Your task to perform on an android device: turn notification dots off Image 0: 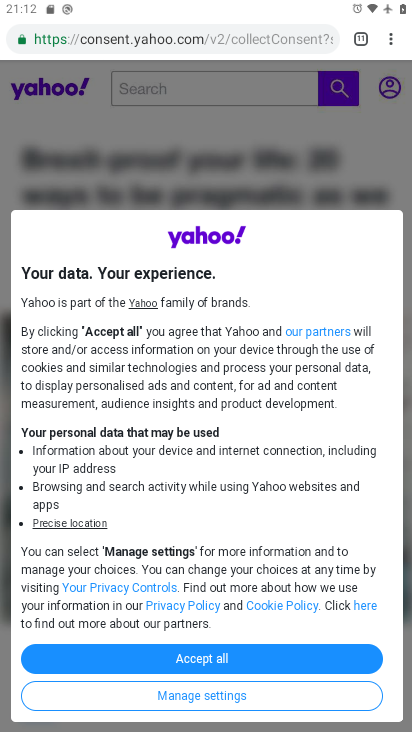
Step 0: press home button
Your task to perform on an android device: turn notification dots off Image 1: 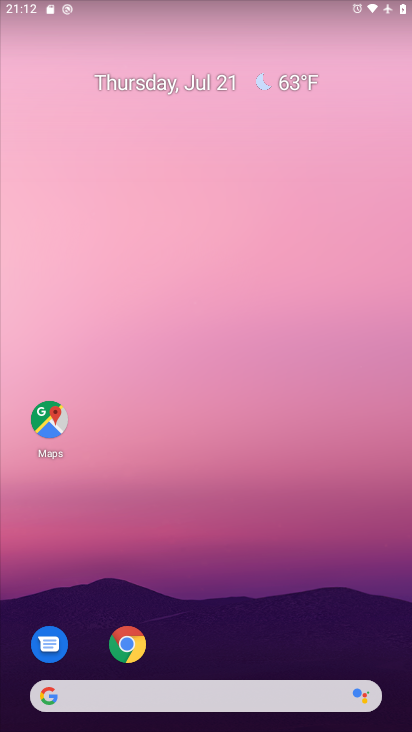
Step 1: drag from (234, 692) to (224, 95)
Your task to perform on an android device: turn notification dots off Image 2: 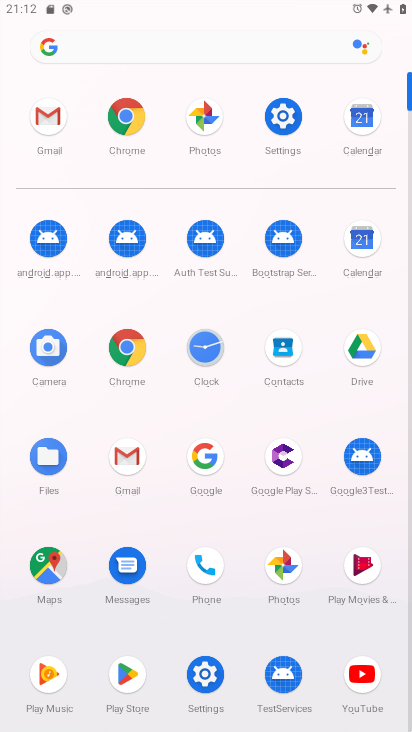
Step 2: click (275, 109)
Your task to perform on an android device: turn notification dots off Image 3: 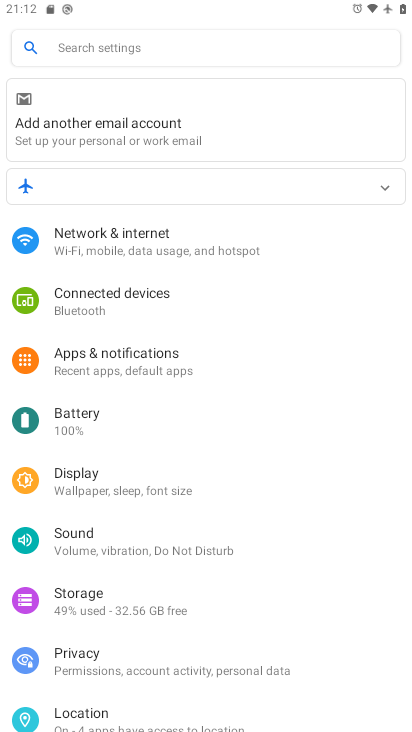
Step 3: click (180, 25)
Your task to perform on an android device: turn notification dots off Image 4: 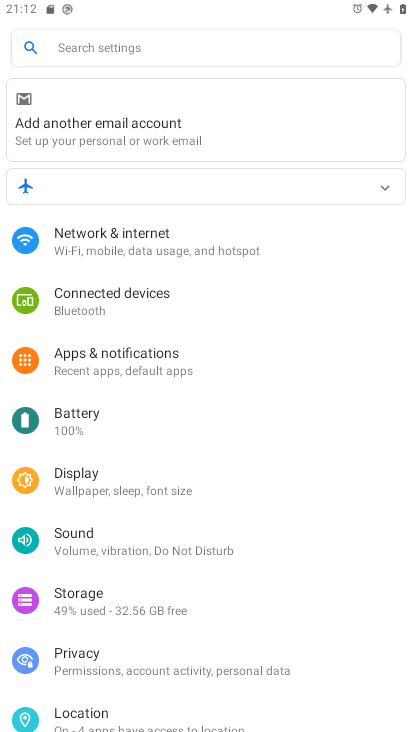
Step 4: click (180, 33)
Your task to perform on an android device: turn notification dots off Image 5: 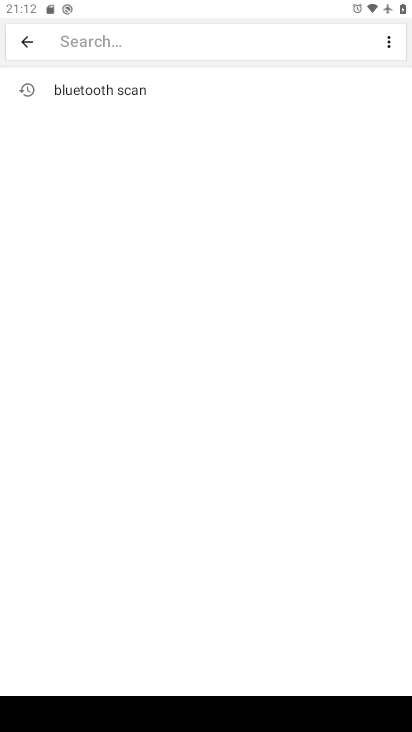
Step 5: type "notification dots "
Your task to perform on an android device: turn notification dots off Image 6: 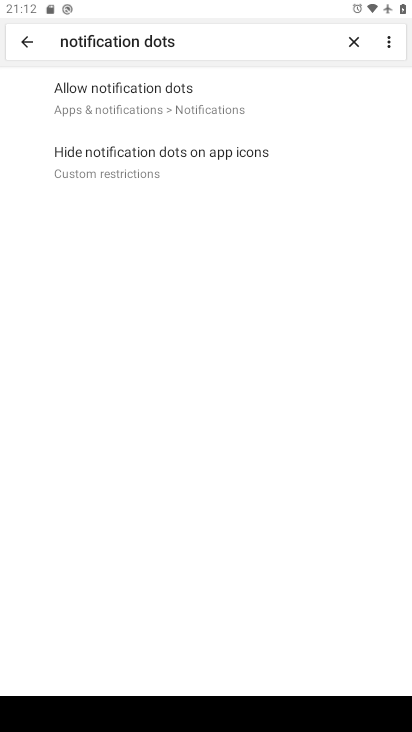
Step 6: click (184, 96)
Your task to perform on an android device: turn notification dots off Image 7: 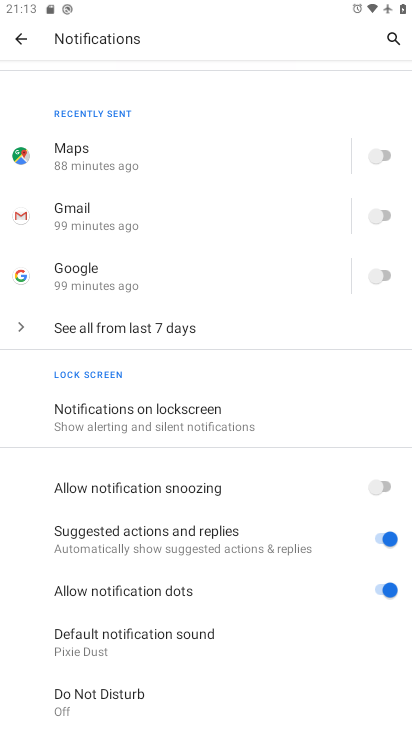
Step 7: click (387, 594)
Your task to perform on an android device: turn notification dots off Image 8: 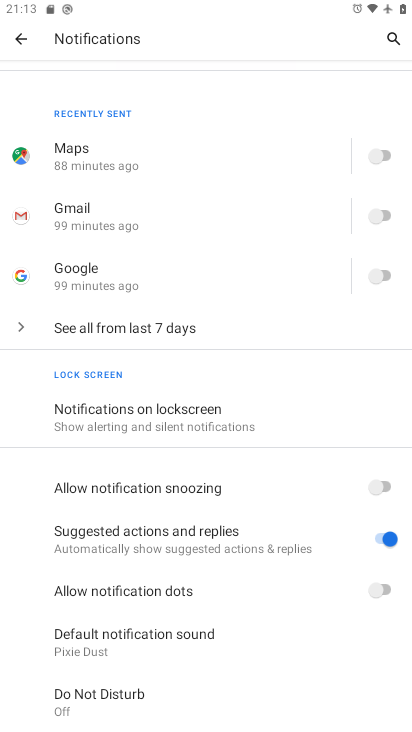
Step 8: task complete